Your task to perform on an android device: open chrome privacy settings Image 0: 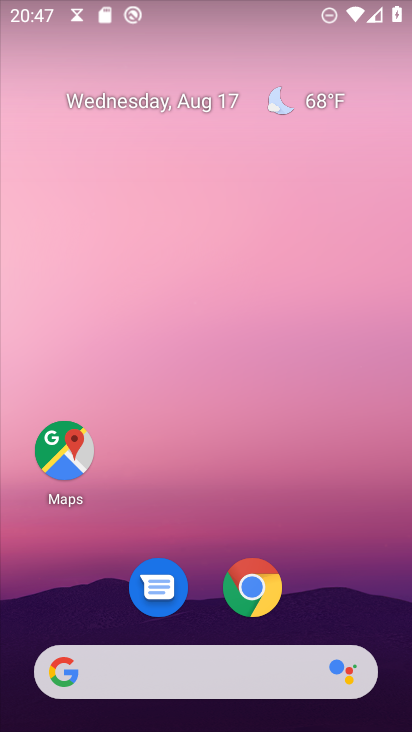
Step 0: click (264, 587)
Your task to perform on an android device: open chrome privacy settings Image 1: 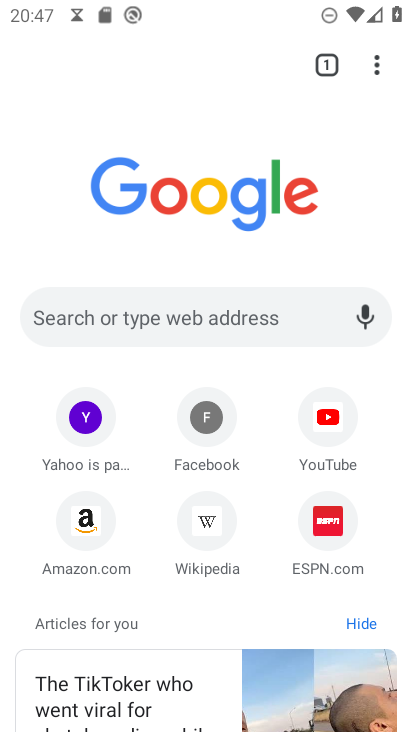
Step 1: click (379, 66)
Your task to perform on an android device: open chrome privacy settings Image 2: 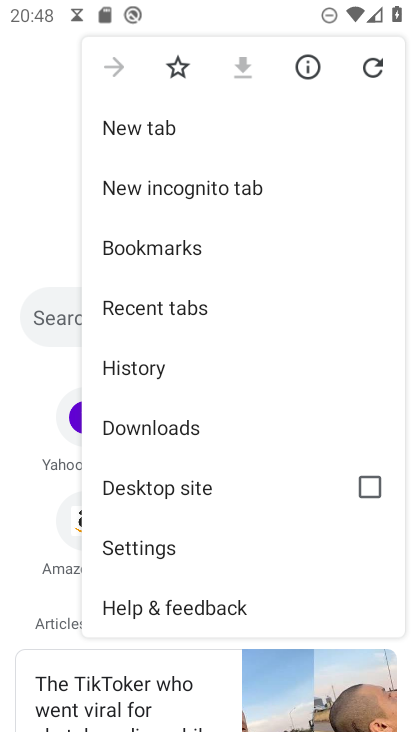
Step 2: click (142, 543)
Your task to perform on an android device: open chrome privacy settings Image 3: 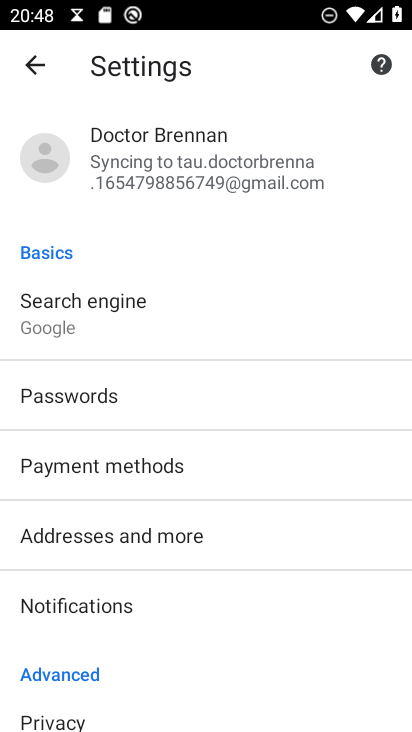
Step 3: drag from (299, 672) to (351, 367)
Your task to perform on an android device: open chrome privacy settings Image 4: 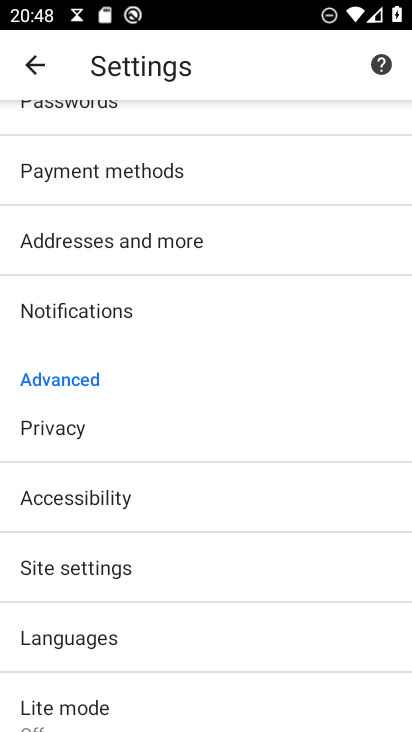
Step 4: click (58, 433)
Your task to perform on an android device: open chrome privacy settings Image 5: 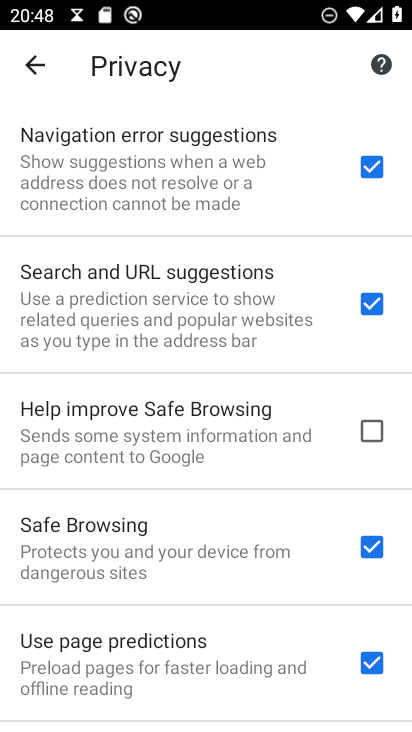
Step 5: task complete